Your task to perform on an android device: Go to eBay Image 0: 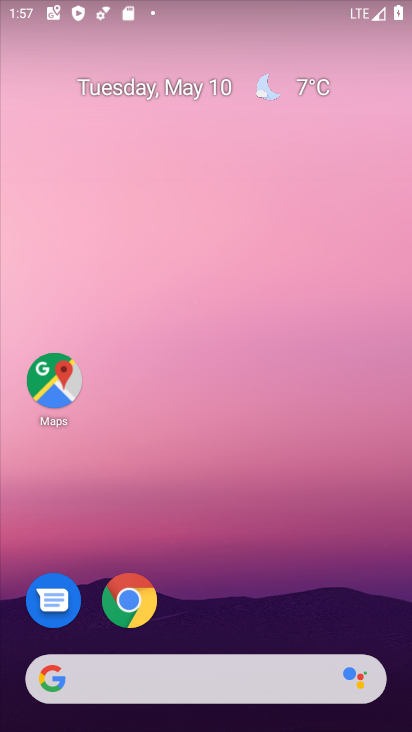
Step 0: press home button
Your task to perform on an android device: Go to eBay Image 1: 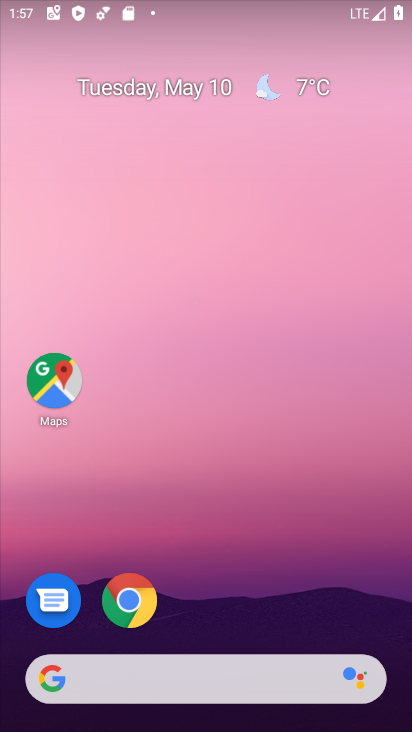
Step 1: drag from (181, 687) to (201, 289)
Your task to perform on an android device: Go to eBay Image 2: 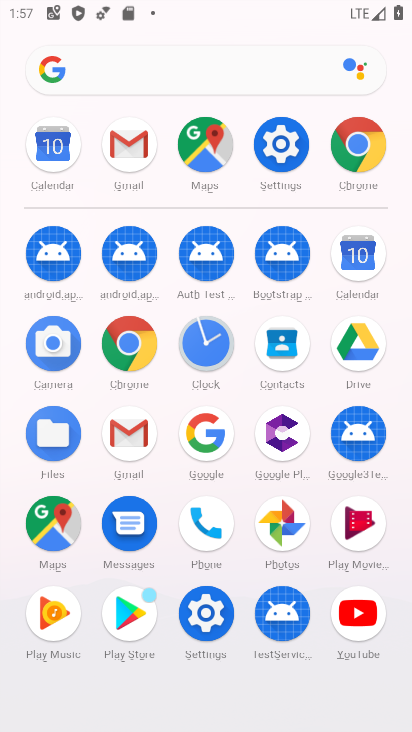
Step 2: click (355, 163)
Your task to perform on an android device: Go to eBay Image 3: 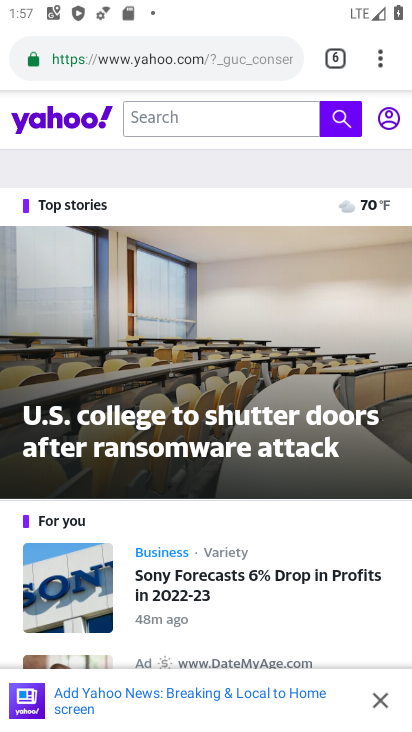
Step 3: drag from (380, 65) to (286, 116)
Your task to perform on an android device: Go to eBay Image 4: 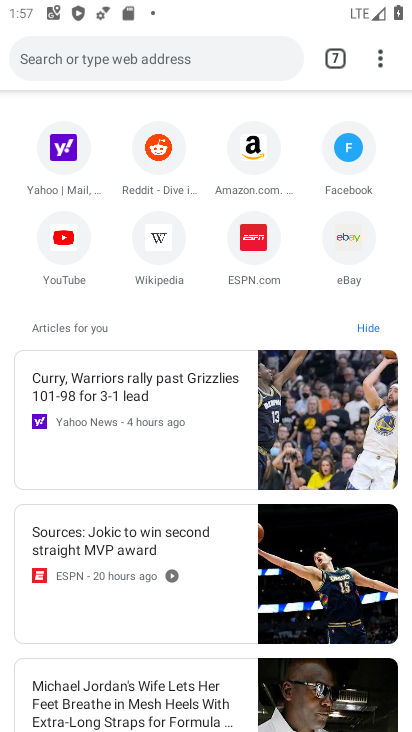
Step 4: click (347, 239)
Your task to perform on an android device: Go to eBay Image 5: 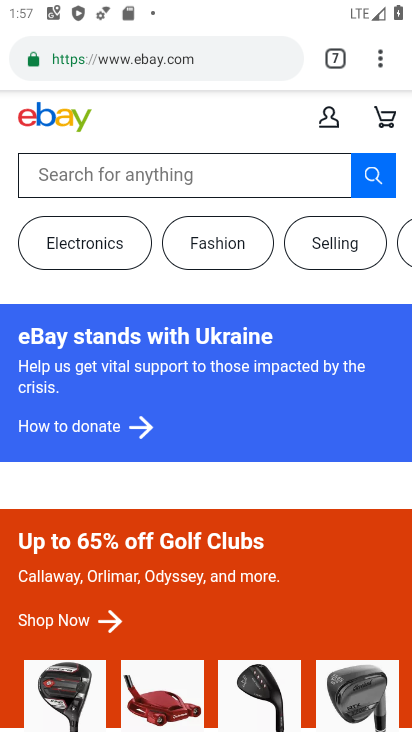
Step 5: task complete